Your task to perform on an android device: turn on the 12-hour format for clock Image 0: 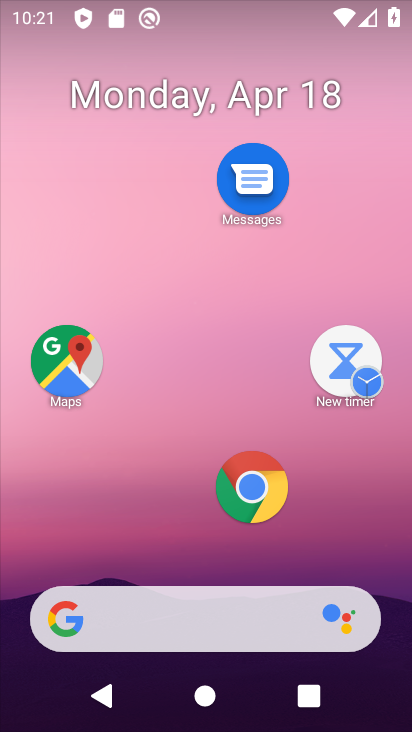
Step 0: drag from (83, 592) to (226, 182)
Your task to perform on an android device: turn on the 12-hour format for clock Image 1: 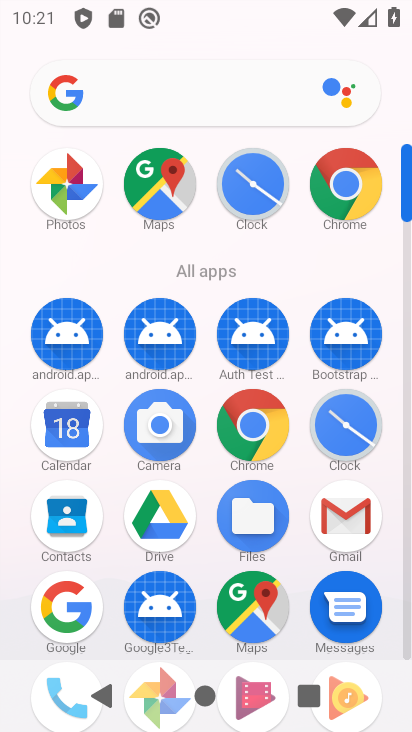
Step 1: drag from (183, 580) to (279, 308)
Your task to perform on an android device: turn on the 12-hour format for clock Image 2: 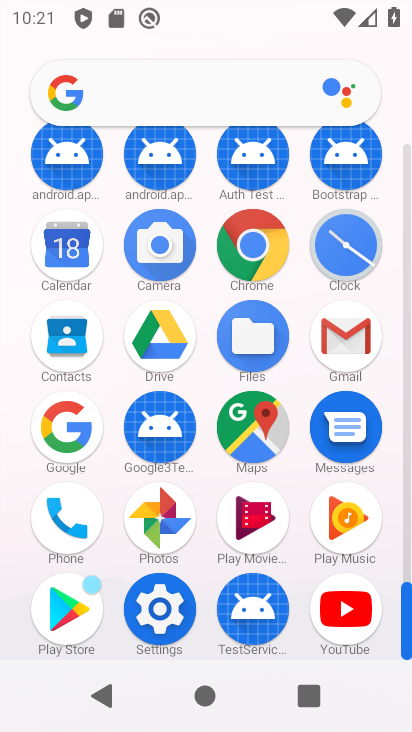
Step 2: click (340, 253)
Your task to perform on an android device: turn on the 12-hour format for clock Image 3: 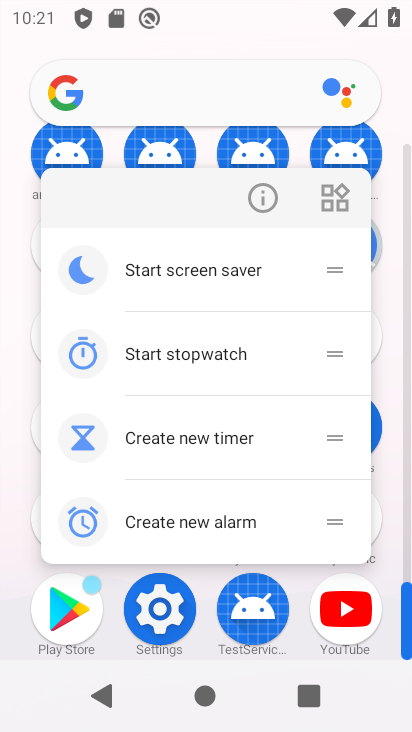
Step 3: click (380, 244)
Your task to perform on an android device: turn on the 12-hour format for clock Image 4: 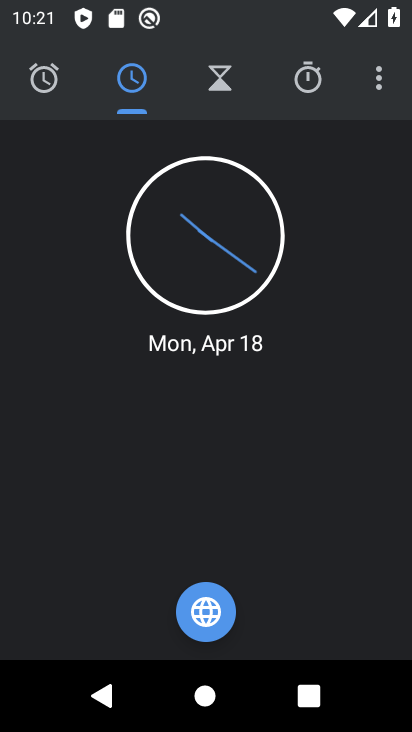
Step 4: click (375, 77)
Your task to perform on an android device: turn on the 12-hour format for clock Image 5: 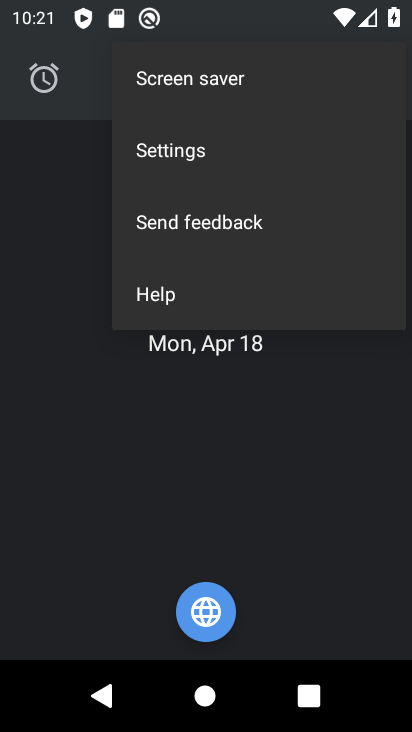
Step 5: click (246, 155)
Your task to perform on an android device: turn on the 12-hour format for clock Image 6: 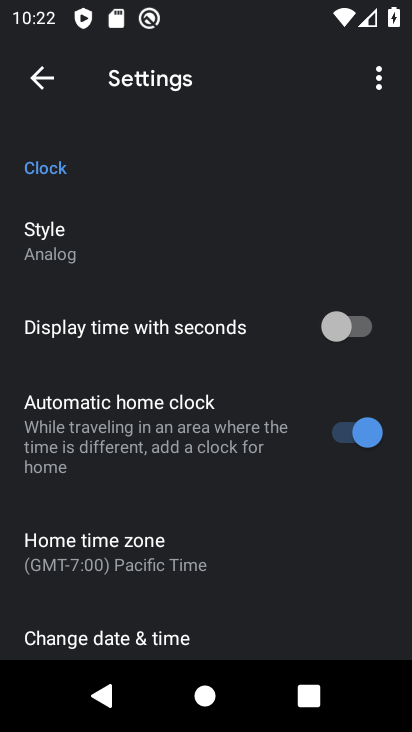
Step 6: drag from (135, 549) to (218, 265)
Your task to perform on an android device: turn on the 12-hour format for clock Image 7: 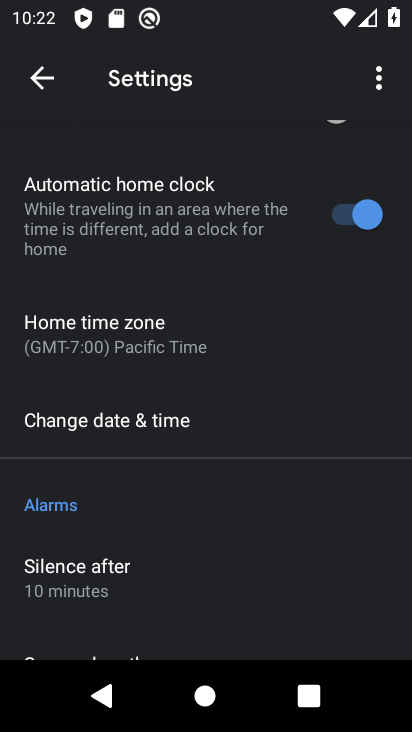
Step 7: click (168, 426)
Your task to perform on an android device: turn on the 12-hour format for clock Image 8: 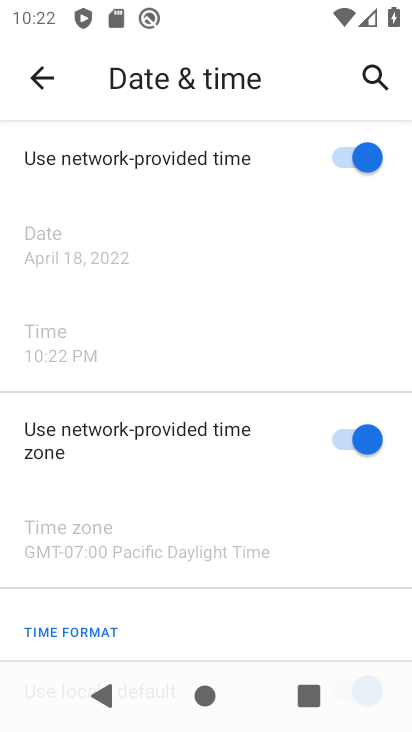
Step 8: task complete